Your task to perform on an android device: delete location history Image 0: 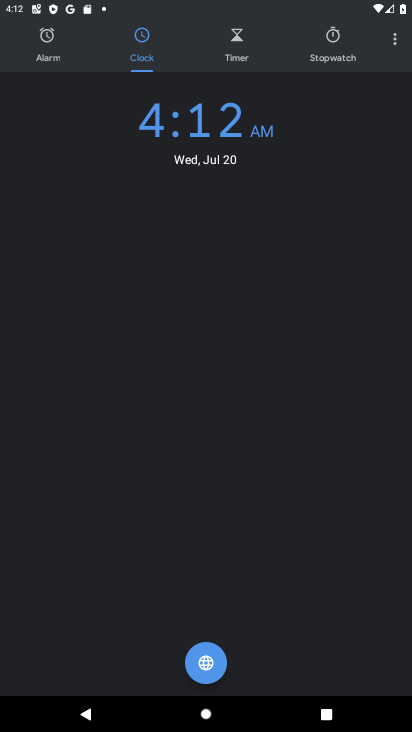
Step 0: press home button
Your task to perform on an android device: delete location history Image 1: 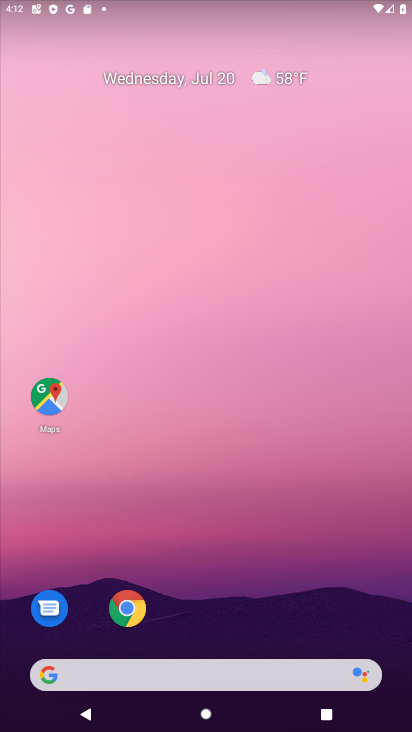
Step 1: drag from (188, 636) to (215, 132)
Your task to perform on an android device: delete location history Image 2: 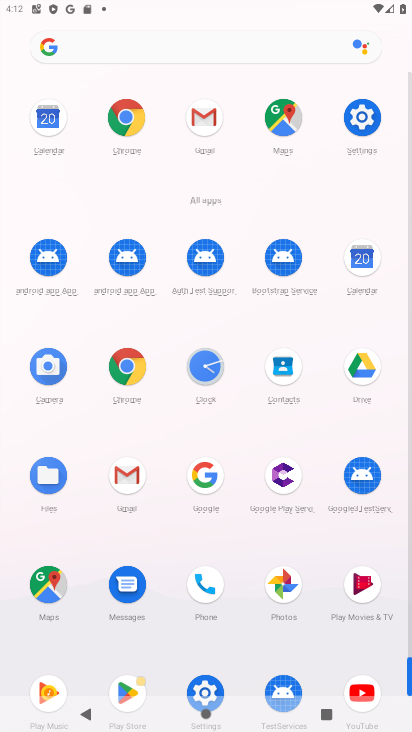
Step 2: click (47, 598)
Your task to perform on an android device: delete location history Image 3: 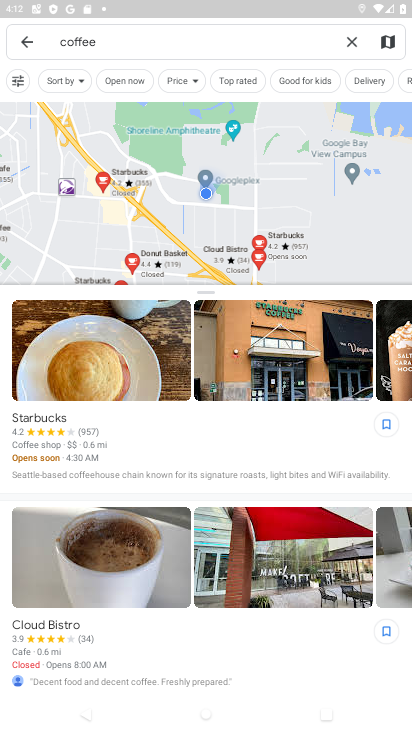
Step 3: click (25, 34)
Your task to perform on an android device: delete location history Image 4: 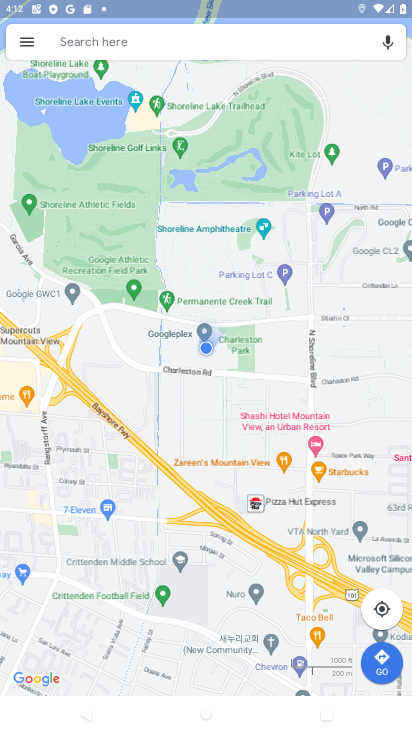
Step 4: click (25, 35)
Your task to perform on an android device: delete location history Image 5: 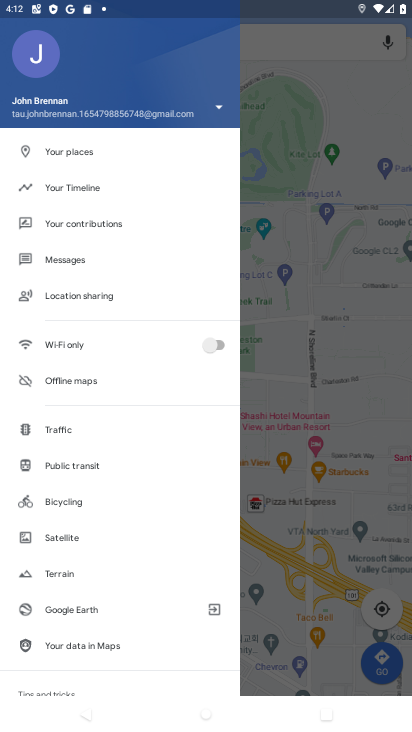
Step 5: click (94, 192)
Your task to perform on an android device: delete location history Image 6: 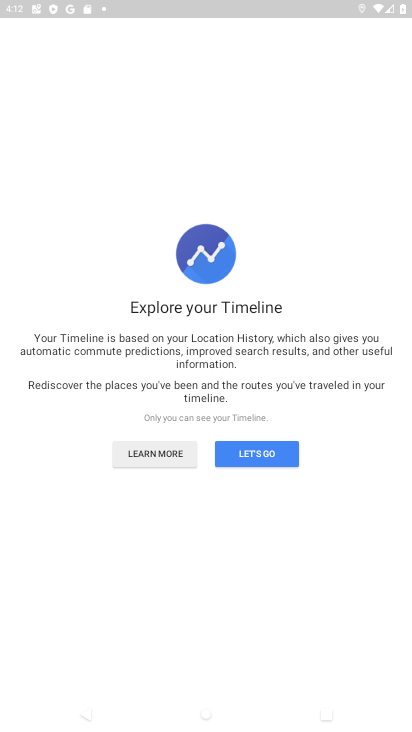
Step 6: click (276, 454)
Your task to perform on an android device: delete location history Image 7: 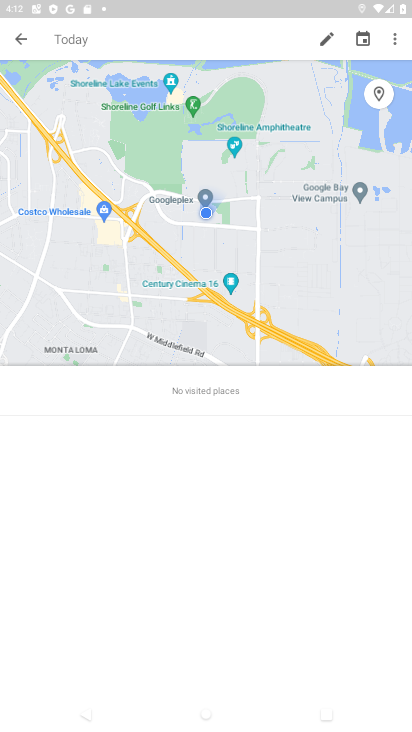
Step 7: click (394, 35)
Your task to perform on an android device: delete location history Image 8: 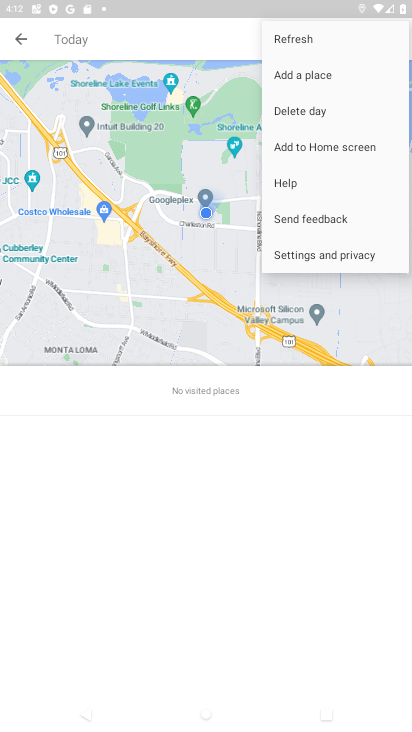
Step 8: click (297, 261)
Your task to perform on an android device: delete location history Image 9: 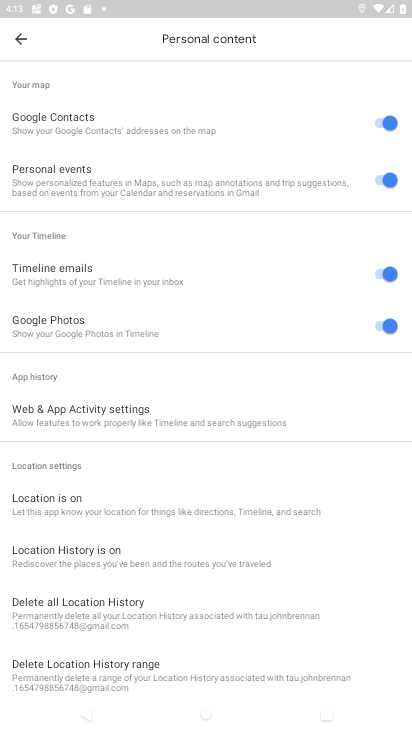
Step 9: click (103, 611)
Your task to perform on an android device: delete location history Image 10: 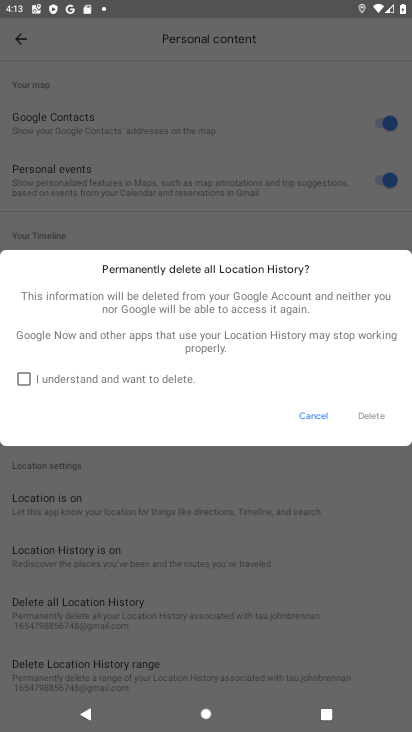
Step 10: click (74, 379)
Your task to perform on an android device: delete location history Image 11: 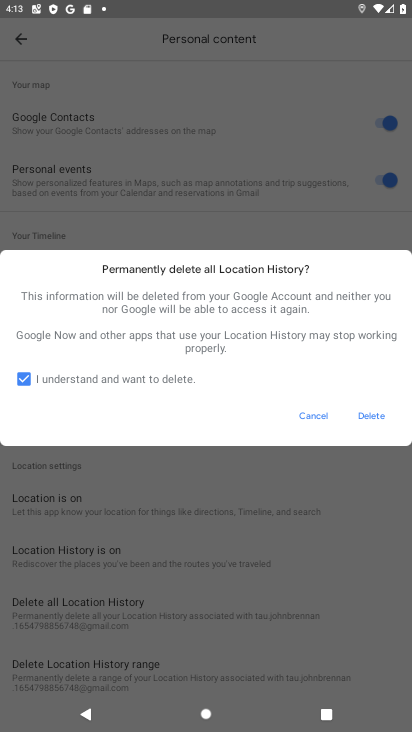
Step 11: click (371, 405)
Your task to perform on an android device: delete location history Image 12: 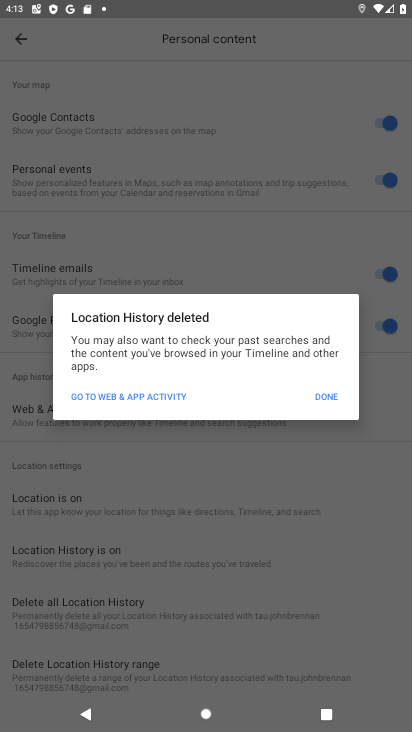
Step 12: click (334, 387)
Your task to perform on an android device: delete location history Image 13: 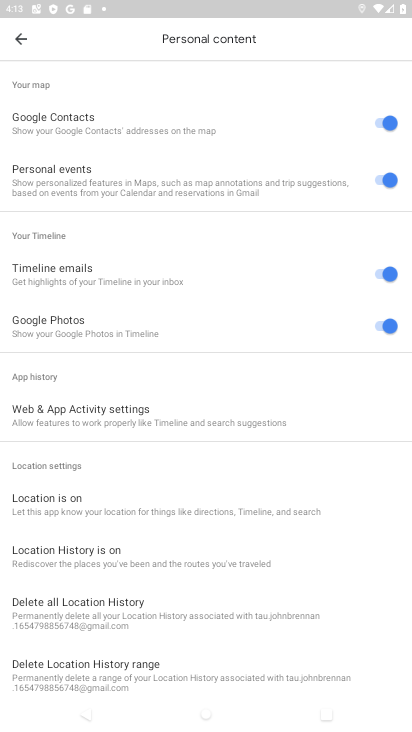
Step 13: task complete